Your task to perform on an android device: toggle javascript in the chrome app Image 0: 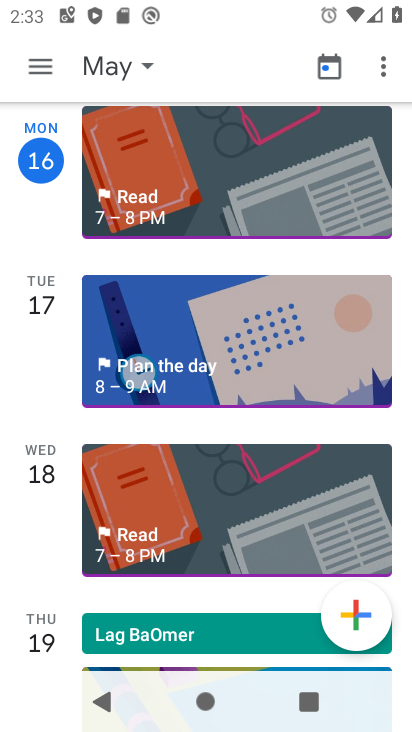
Step 0: press home button
Your task to perform on an android device: toggle javascript in the chrome app Image 1: 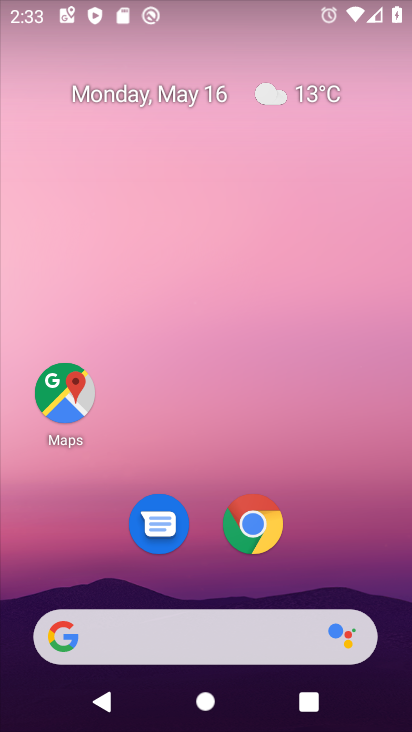
Step 1: click (258, 519)
Your task to perform on an android device: toggle javascript in the chrome app Image 2: 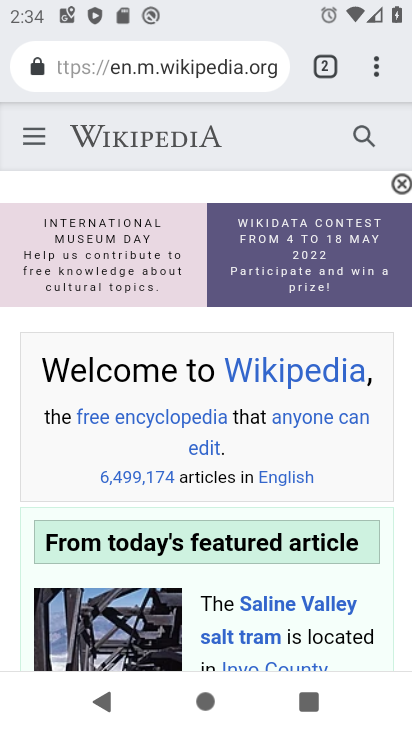
Step 2: click (379, 64)
Your task to perform on an android device: toggle javascript in the chrome app Image 3: 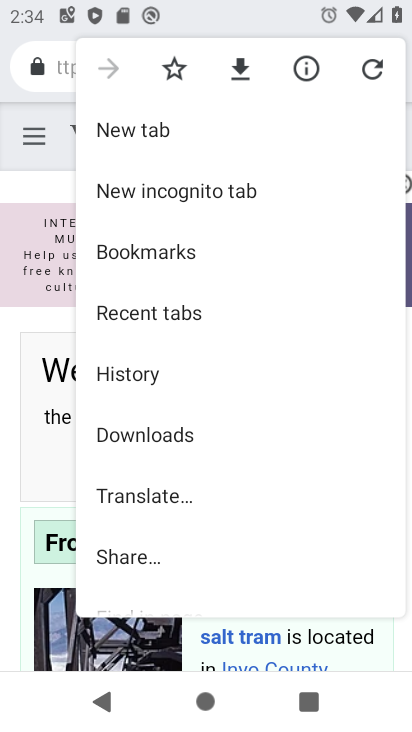
Step 3: drag from (240, 465) to (237, 191)
Your task to perform on an android device: toggle javascript in the chrome app Image 4: 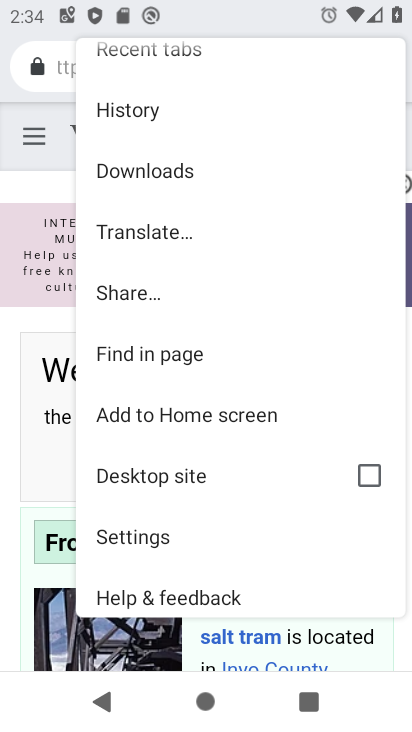
Step 4: click (161, 535)
Your task to perform on an android device: toggle javascript in the chrome app Image 5: 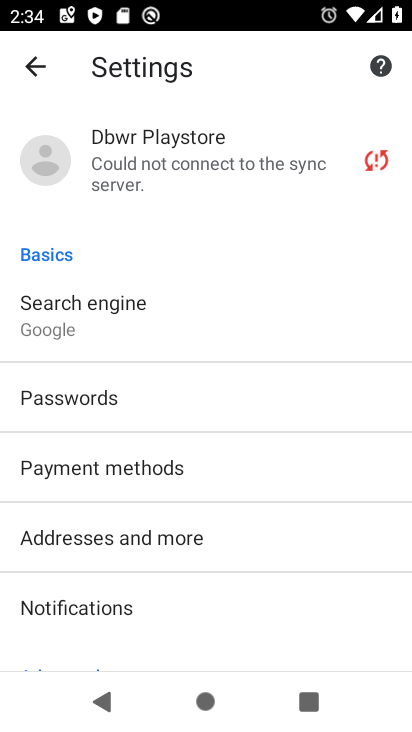
Step 5: drag from (258, 537) to (296, 217)
Your task to perform on an android device: toggle javascript in the chrome app Image 6: 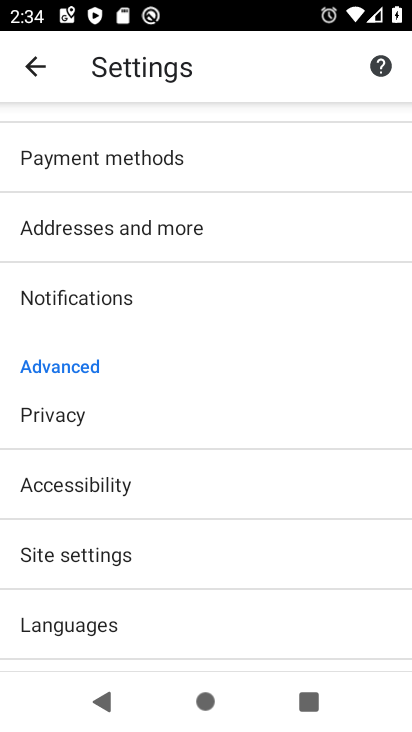
Step 6: click (138, 537)
Your task to perform on an android device: toggle javascript in the chrome app Image 7: 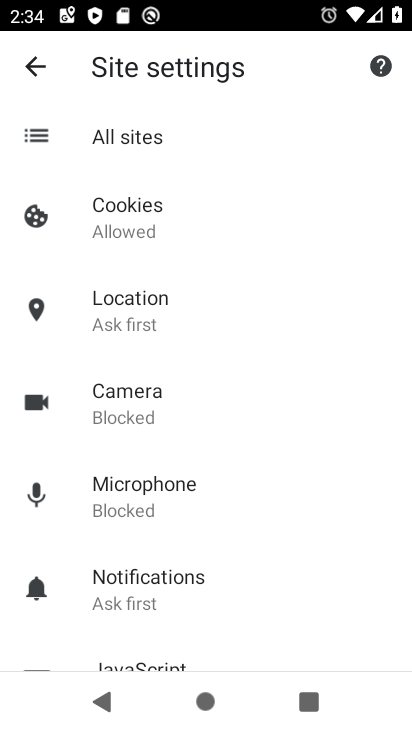
Step 7: drag from (250, 593) to (277, 307)
Your task to perform on an android device: toggle javascript in the chrome app Image 8: 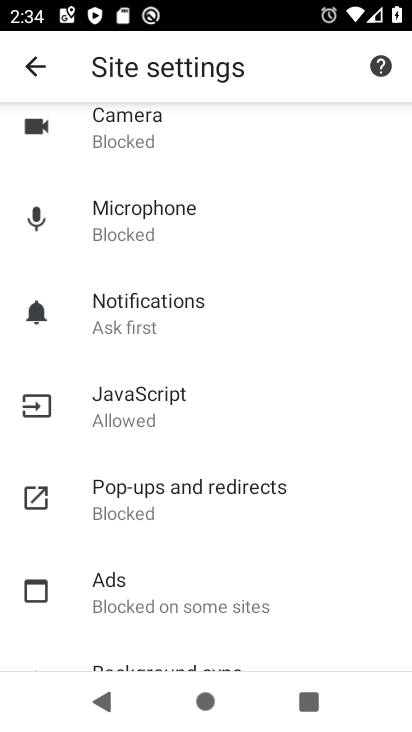
Step 8: click (192, 404)
Your task to perform on an android device: toggle javascript in the chrome app Image 9: 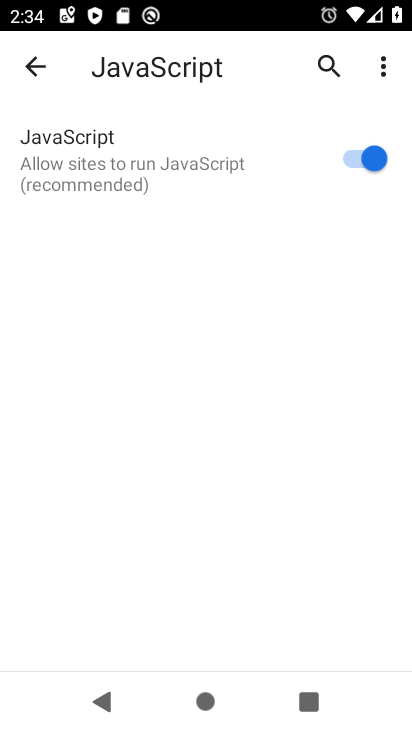
Step 9: click (351, 146)
Your task to perform on an android device: toggle javascript in the chrome app Image 10: 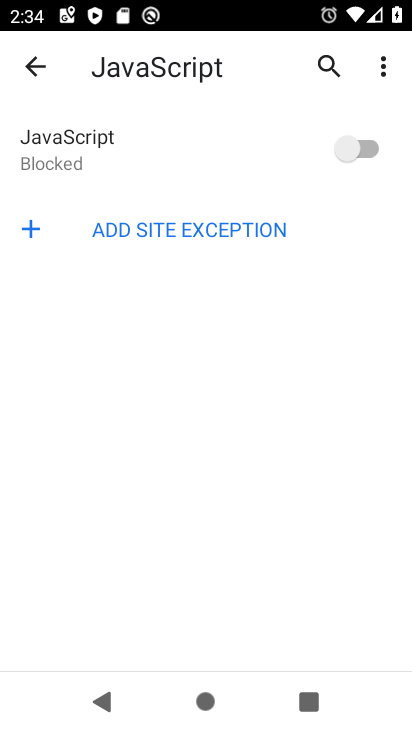
Step 10: task complete